Your task to perform on an android device: toggle wifi Image 0: 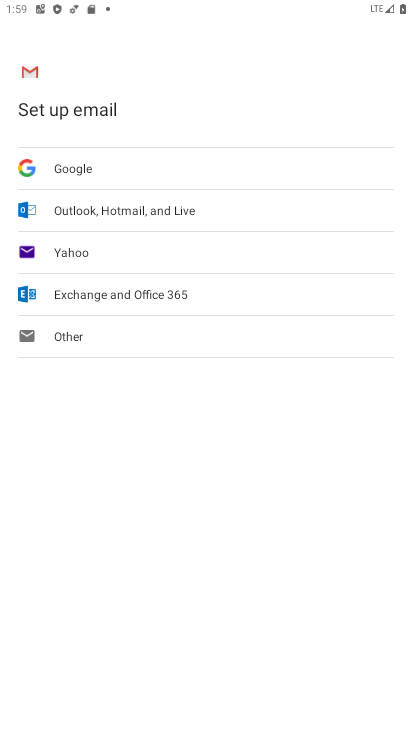
Step 0: press home button
Your task to perform on an android device: toggle wifi Image 1: 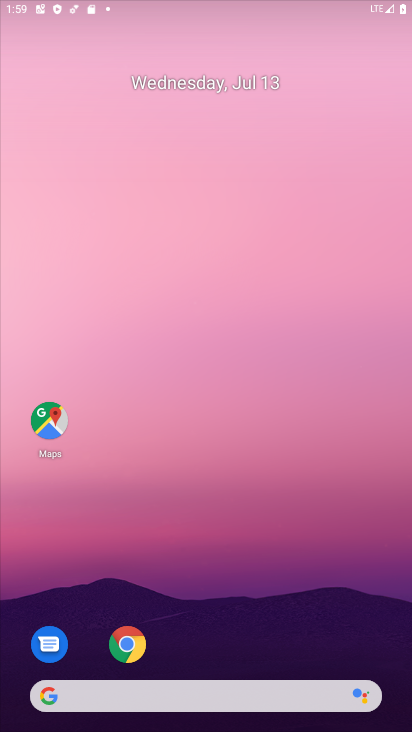
Step 1: drag from (363, 599) to (289, 77)
Your task to perform on an android device: toggle wifi Image 2: 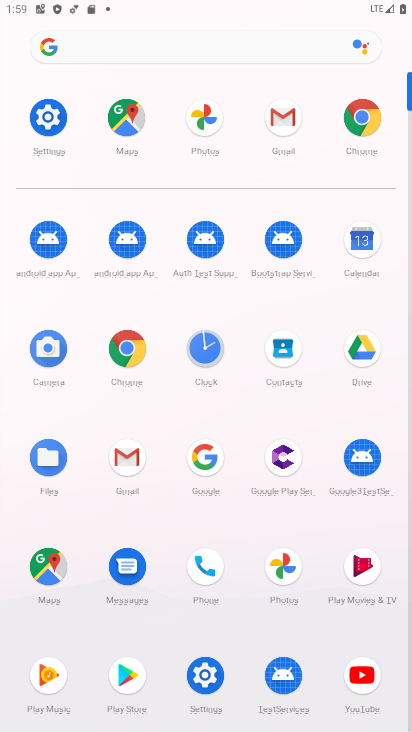
Step 2: click (50, 123)
Your task to perform on an android device: toggle wifi Image 3: 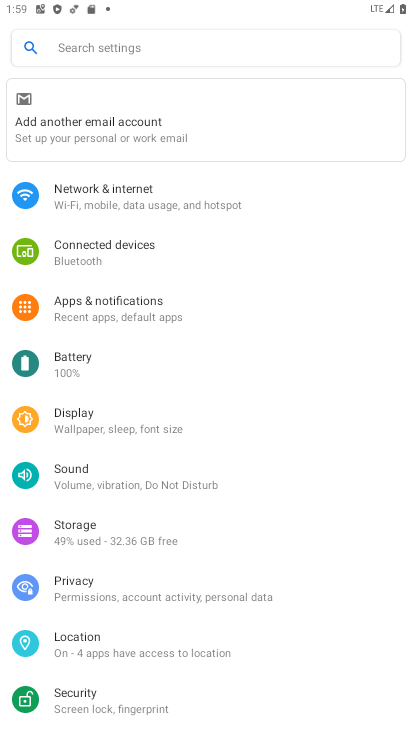
Step 3: click (150, 199)
Your task to perform on an android device: toggle wifi Image 4: 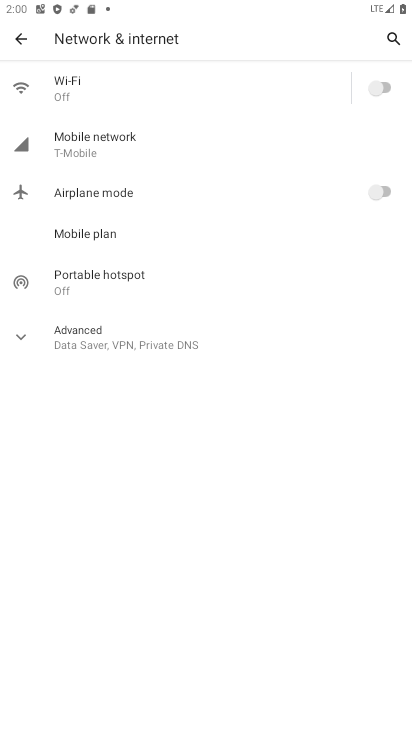
Step 4: click (385, 79)
Your task to perform on an android device: toggle wifi Image 5: 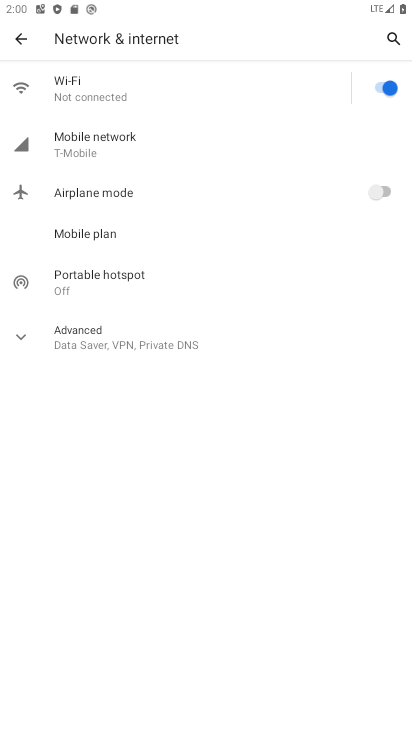
Step 5: task complete